Your task to perform on an android device: Turn off the flashlight Image 0: 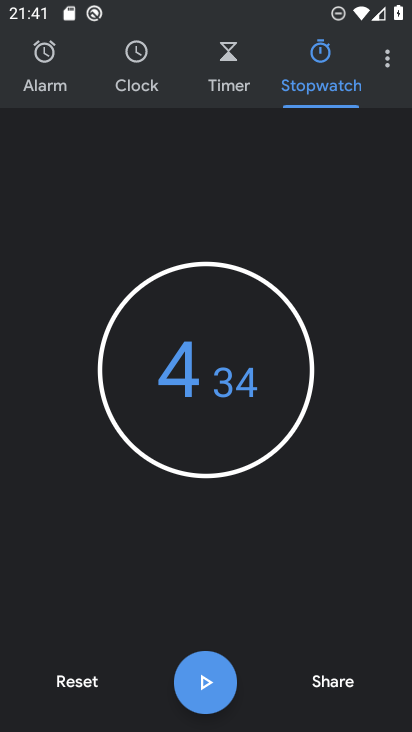
Step 0: task complete